Your task to perform on an android device: Open Yahoo.com Image 0: 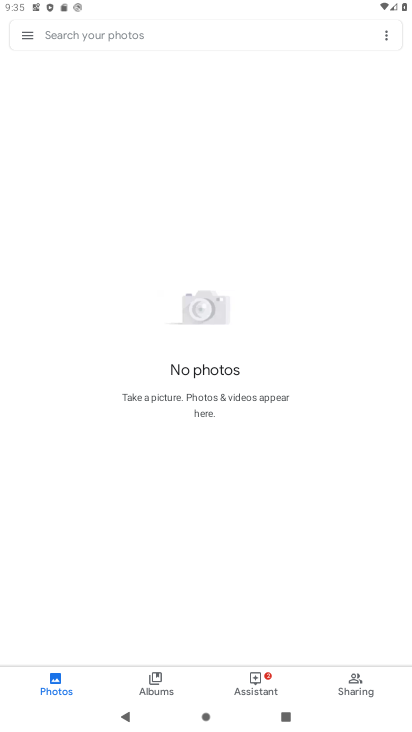
Step 0: task complete